Your task to perform on an android device: turn notification dots on Image 0: 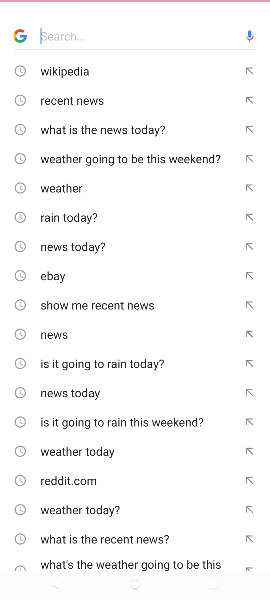
Step 0: press home button
Your task to perform on an android device: turn notification dots on Image 1: 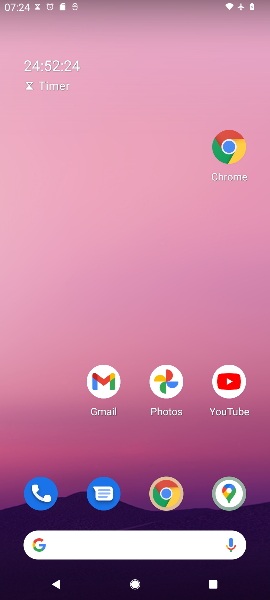
Step 1: drag from (142, 479) to (228, 9)
Your task to perform on an android device: turn notification dots on Image 2: 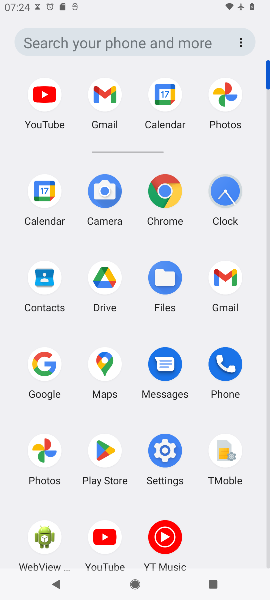
Step 2: click (164, 452)
Your task to perform on an android device: turn notification dots on Image 3: 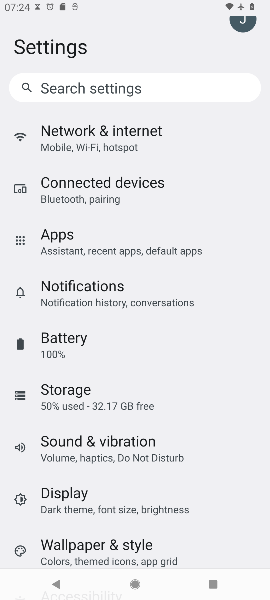
Step 3: click (68, 297)
Your task to perform on an android device: turn notification dots on Image 4: 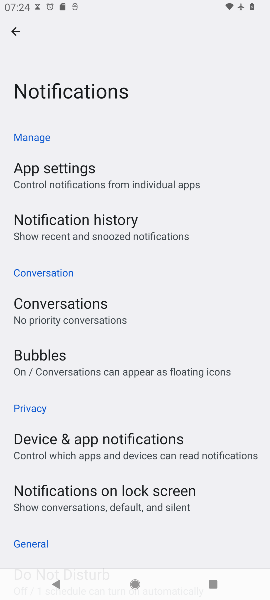
Step 4: task complete